Your task to perform on an android device: Search for seafood restaurants on Google Maps Image 0: 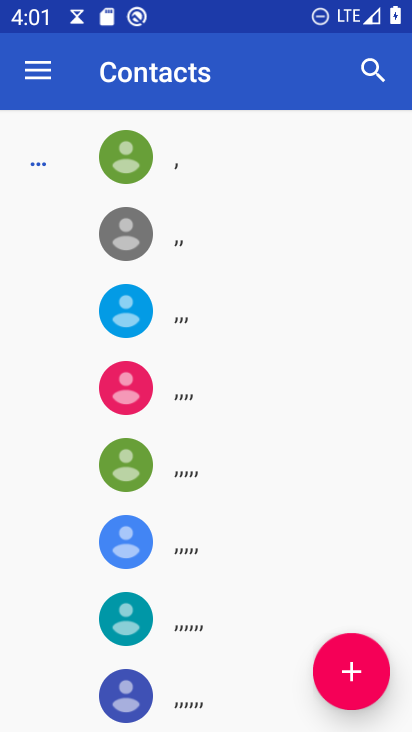
Step 0: press home button
Your task to perform on an android device: Search for seafood restaurants on Google Maps Image 1: 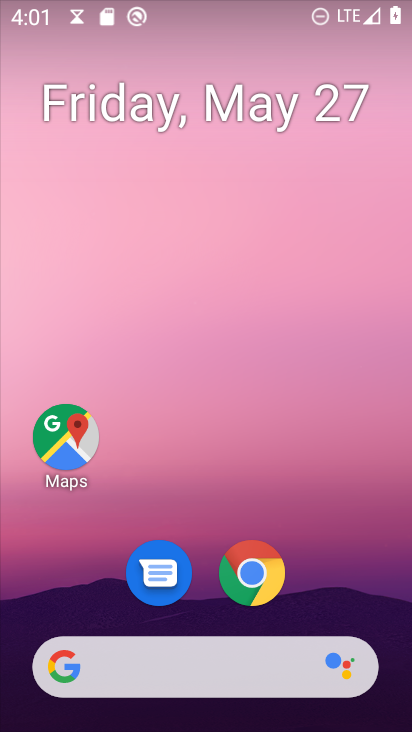
Step 1: click (46, 445)
Your task to perform on an android device: Search for seafood restaurants on Google Maps Image 2: 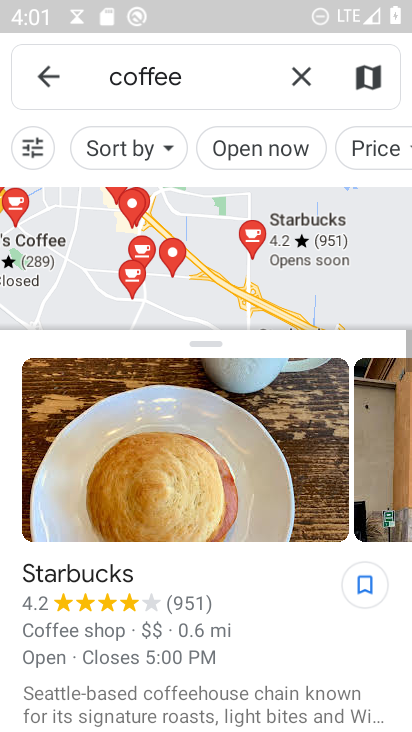
Step 2: click (298, 77)
Your task to perform on an android device: Search for seafood restaurants on Google Maps Image 3: 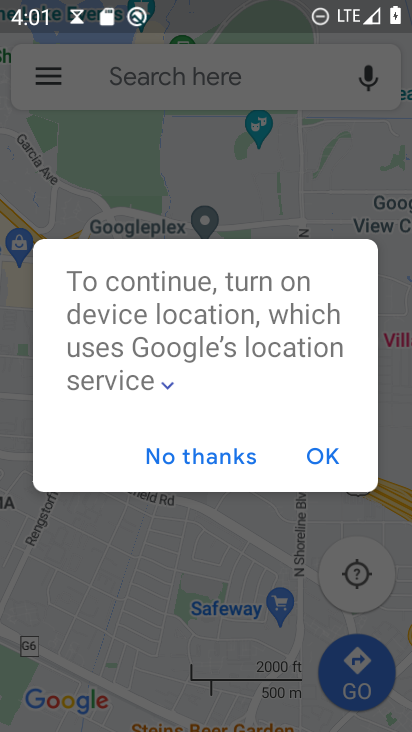
Step 3: click (321, 449)
Your task to perform on an android device: Search for seafood restaurants on Google Maps Image 4: 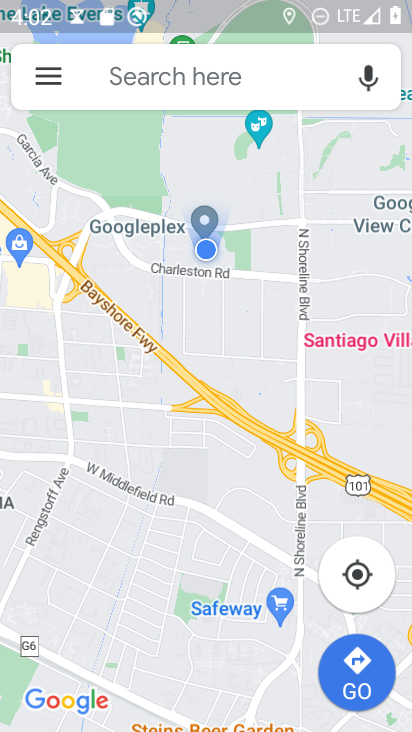
Step 4: click (198, 67)
Your task to perform on an android device: Search for seafood restaurants on Google Maps Image 5: 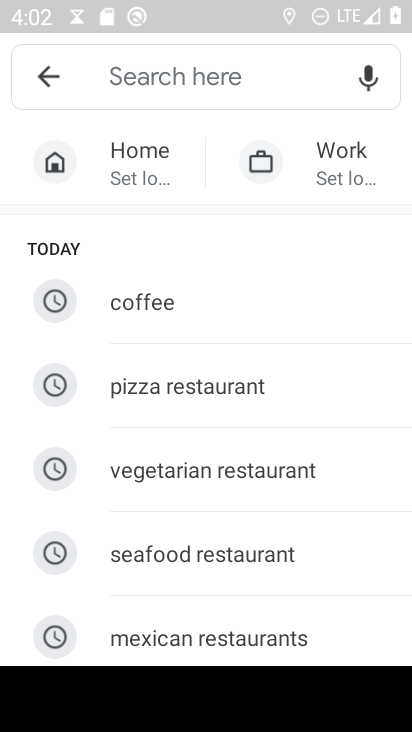
Step 5: type "seafood restaurant"
Your task to perform on an android device: Search for seafood restaurants on Google Maps Image 6: 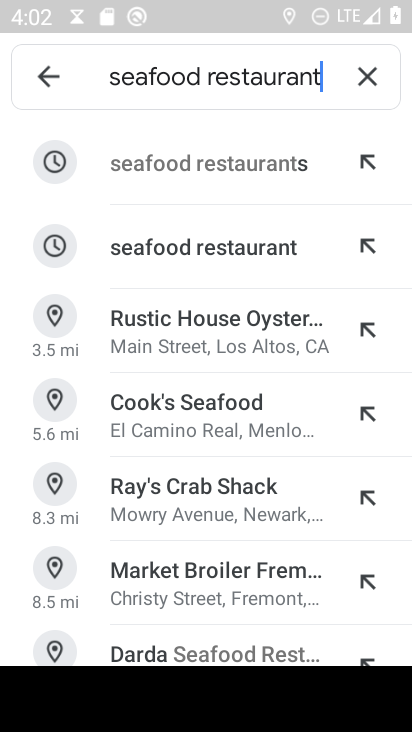
Step 6: click (150, 171)
Your task to perform on an android device: Search for seafood restaurants on Google Maps Image 7: 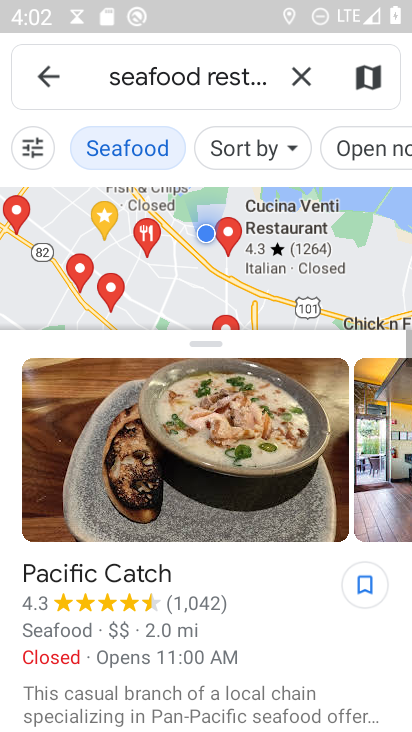
Step 7: task complete